Your task to perform on an android device: Open Youtube and go to the subscriptions tab Image 0: 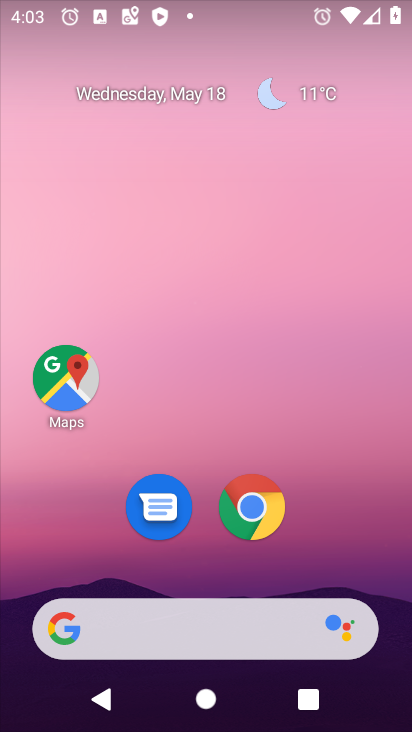
Step 0: drag from (400, 637) to (285, 168)
Your task to perform on an android device: Open Youtube and go to the subscriptions tab Image 1: 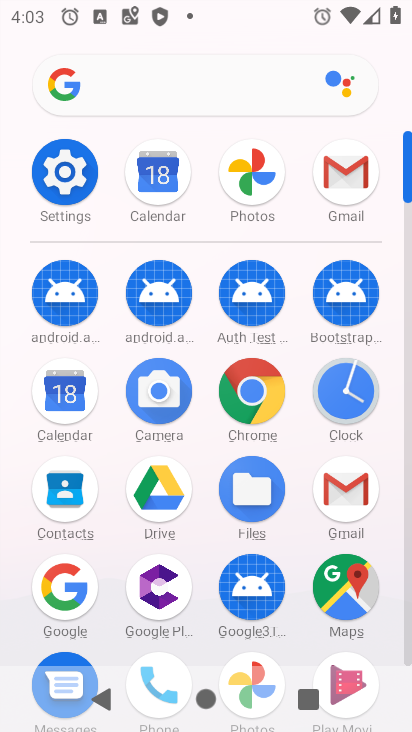
Step 1: click (408, 651)
Your task to perform on an android device: Open Youtube and go to the subscriptions tab Image 2: 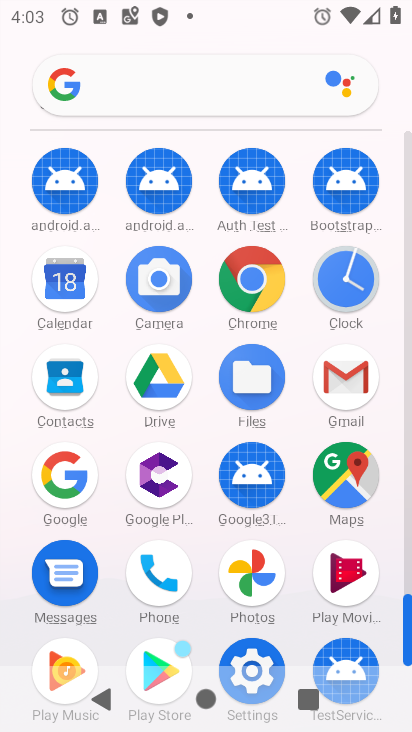
Step 2: click (406, 578)
Your task to perform on an android device: Open Youtube and go to the subscriptions tab Image 3: 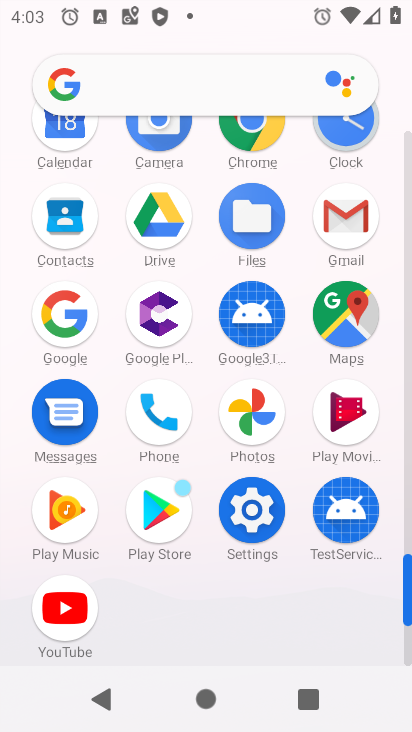
Step 3: click (61, 608)
Your task to perform on an android device: Open Youtube and go to the subscriptions tab Image 4: 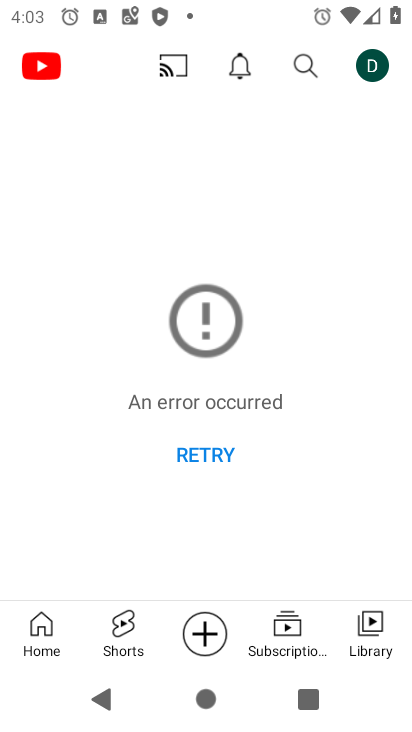
Step 4: click (282, 628)
Your task to perform on an android device: Open Youtube and go to the subscriptions tab Image 5: 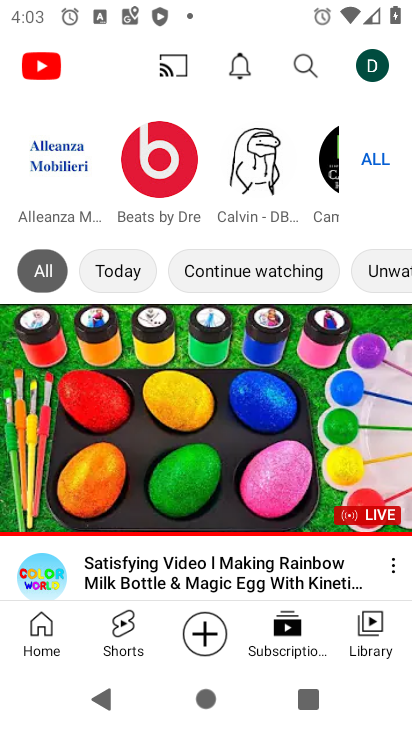
Step 5: task complete